Your task to perform on an android device: toggle airplane mode Image 0: 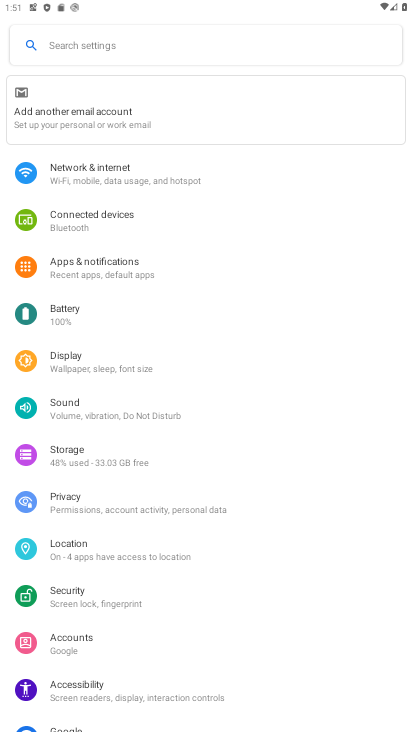
Step 0: press home button
Your task to perform on an android device: toggle airplane mode Image 1: 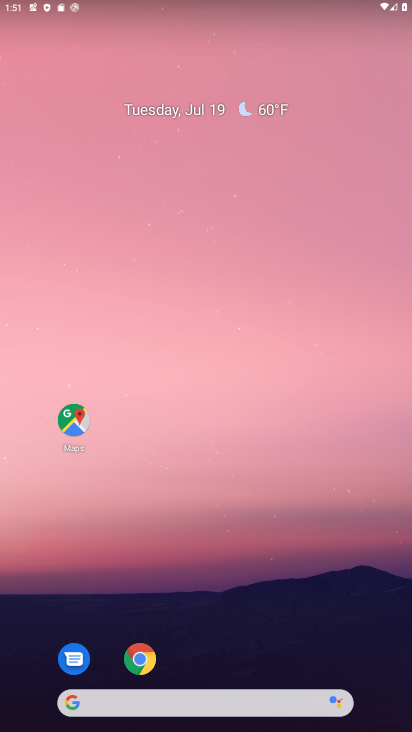
Step 1: drag from (359, 6) to (246, 543)
Your task to perform on an android device: toggle airplane mode Image 2: 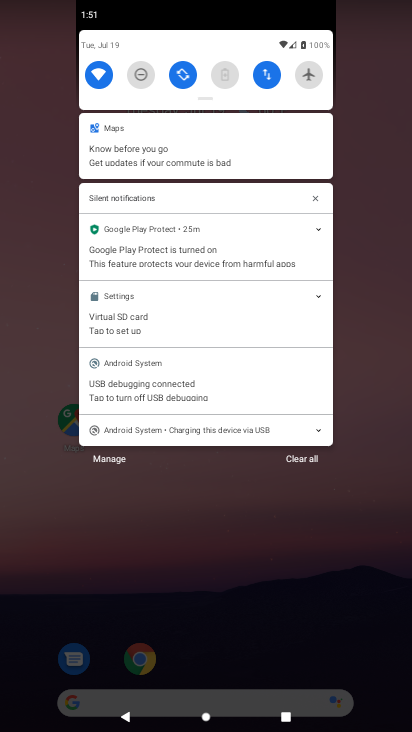
Step 2: click (311, 75)
Your task to perform on an android device: toggle airplane mode Image 3: 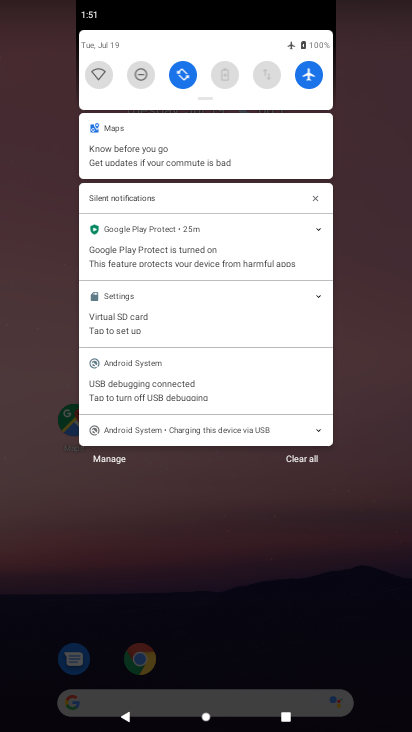
Step 3: task complete